Your task to perform on an android device: Open Google Chrome and open the bookmarks view Image 0: 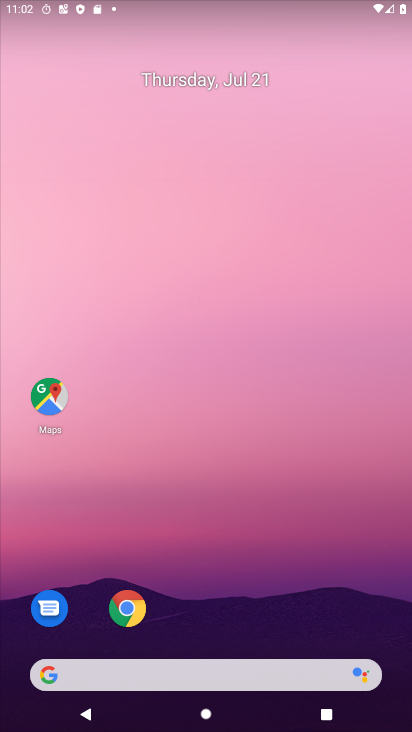
Step 0: click (135, 606)
Your task to perform on an android device: Open Google Chrome and open the bookmarks view Image 1: 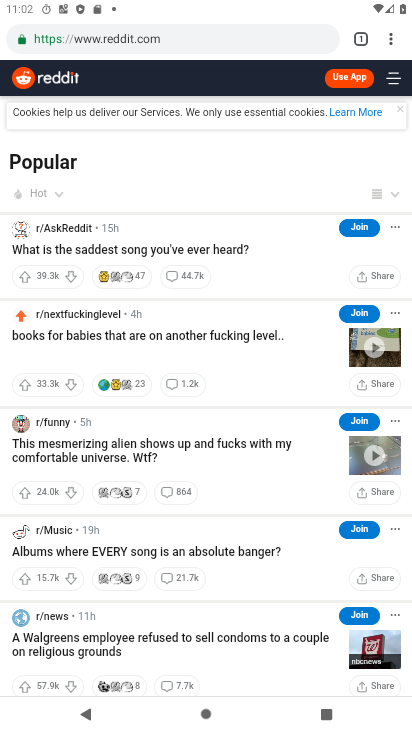
Step 1: click (393, 36)
Your task to perform on an android device: Open Google Chrome and open the bookmarks view Image 2: 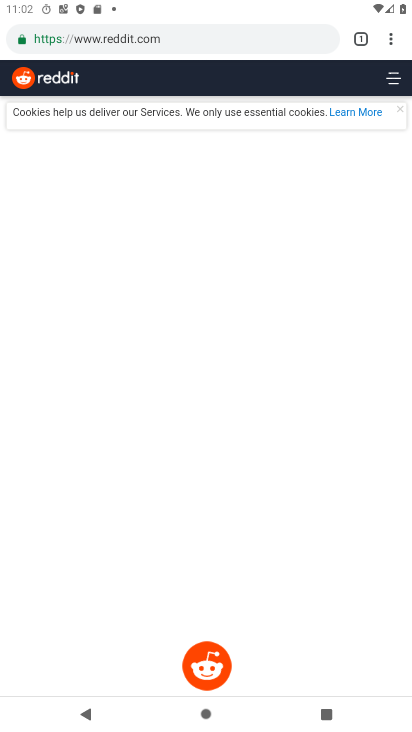
Step 2: click (390, 41)
Your task to perform on an android device: Open Google Chrome and open the bookmarks view Image 3: 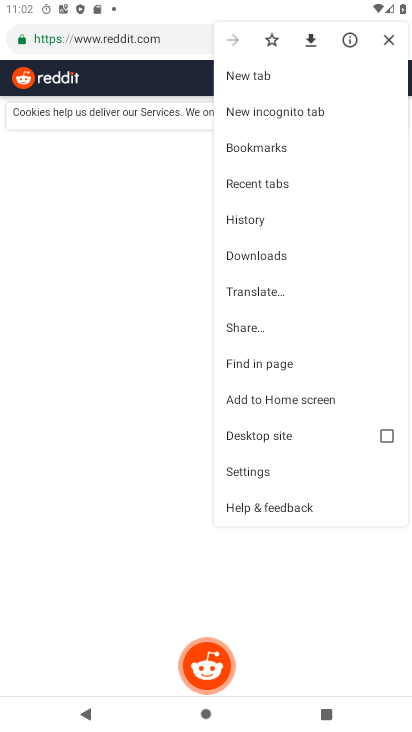
Step 3: click (236, 480)
Your task to perform on an android device: Open Google Chrome and open the bookmarks view Image 4: 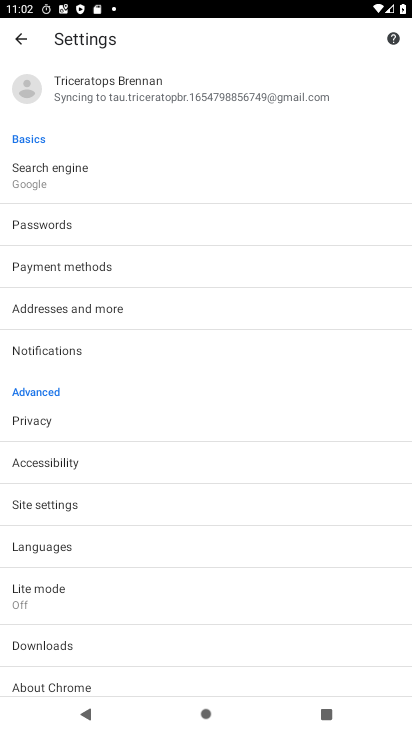
Step 4: click (23, 35)
Your task to perform on an android device: Open Google Chrome and open the bookmarks view Image 5: 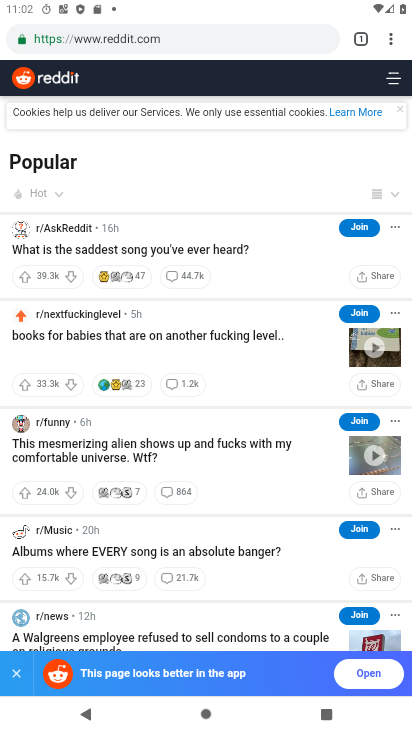
Step 5: click (390, 41)
Your task to perform on an android device: Open Google Chrome and open the bookmarks view Image 6: 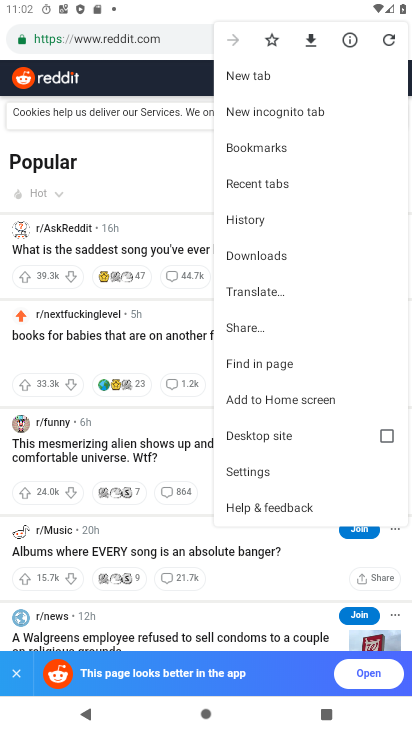
Step 6: click (293, 155)
Your task to perform on an android device: Open Google Chrome and open the bookmarks view Image 7: 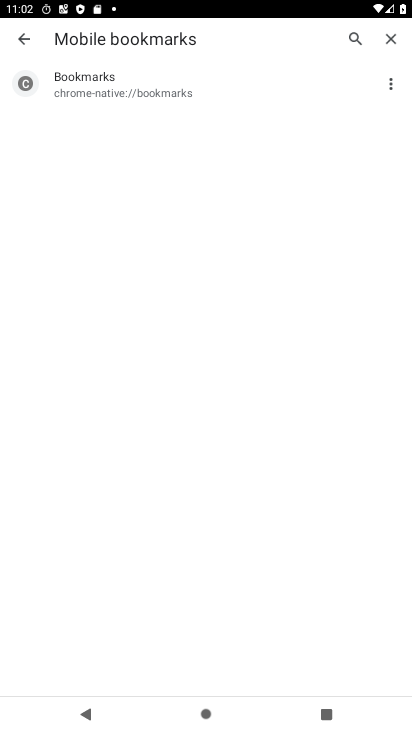
Step 7: task complete